Your task to perform on an android device: check google app version Image 0: 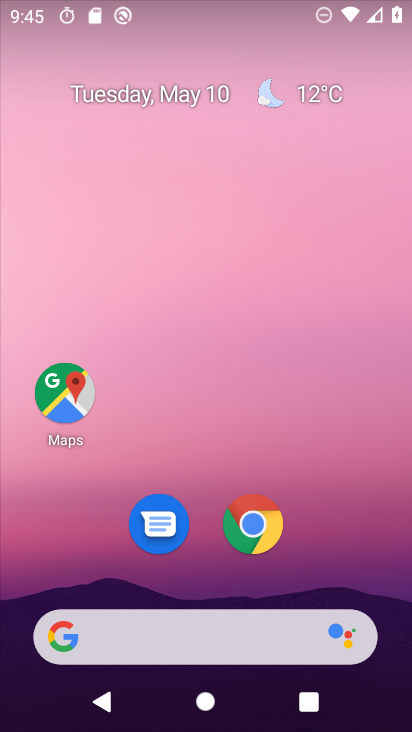
Step 0: click (252, 636)
Your task to perform on an android device: check google app version Image 1: 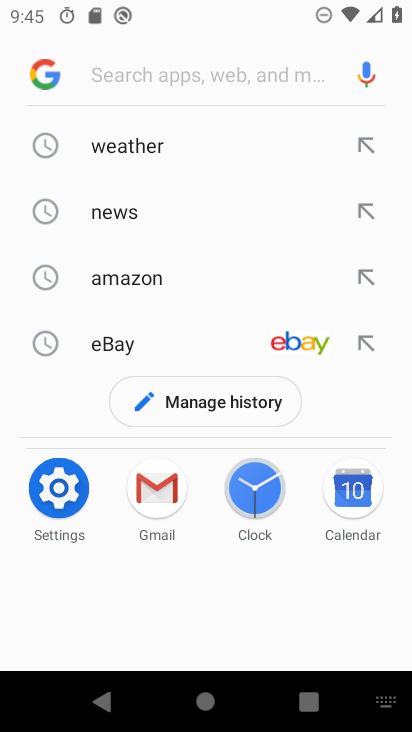
Step 1: click (38, 68)
Your task to perform on an android device: check google app version Image 2: 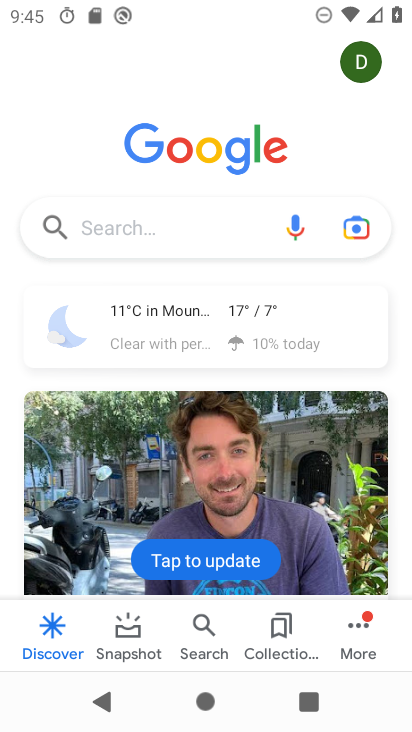
Step 2: click (352, 615)
Your task to perform on an android device: check google app version Image 3: 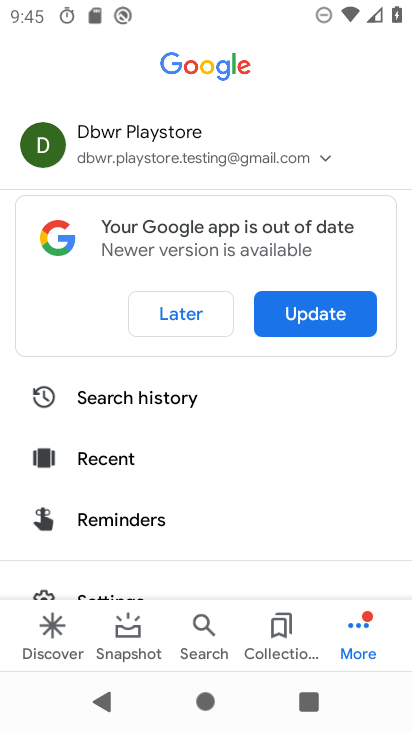
Step 3: drag from (212, 500) to (221, 293)
Your task to perform on an android device: check google app version Image 4: 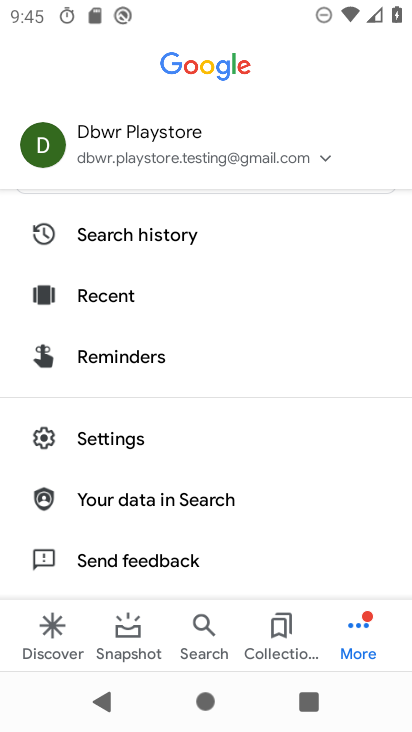
Step 4: click (127, 433)
Your task to perform on an android device: check google app version Image 5: 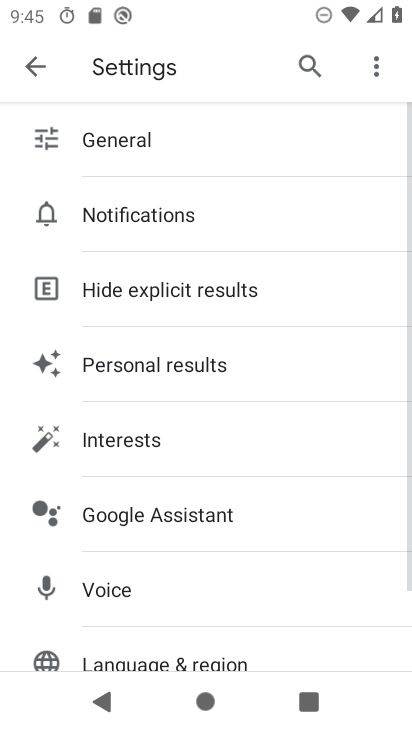
Step 5: drag from (183, 566) to (206, 199)
Your task to perform on an android device: check google app version Image 6: 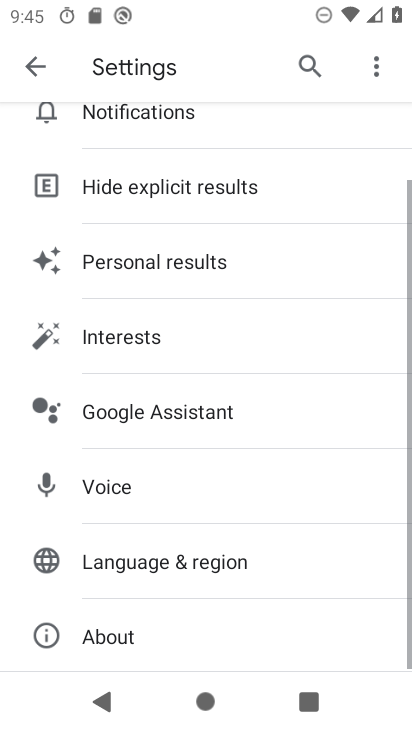
Step 6: click (124, 639)
Your task to perform on an android device: check google app version Image 7: 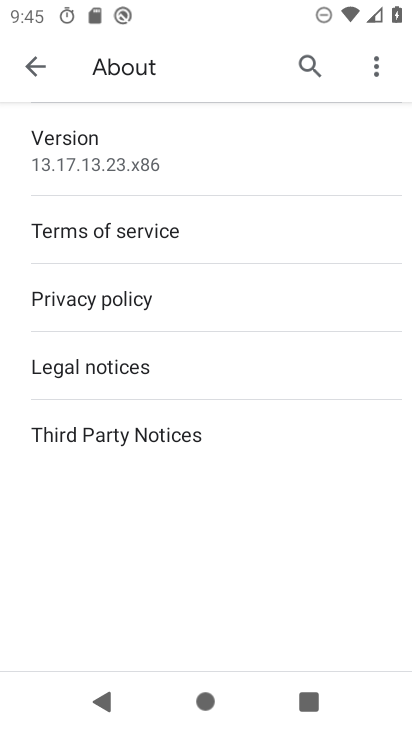
Step 7: task complete